Your task to perform on an android device: remove spam from my inbox in the gmail app Image 0: 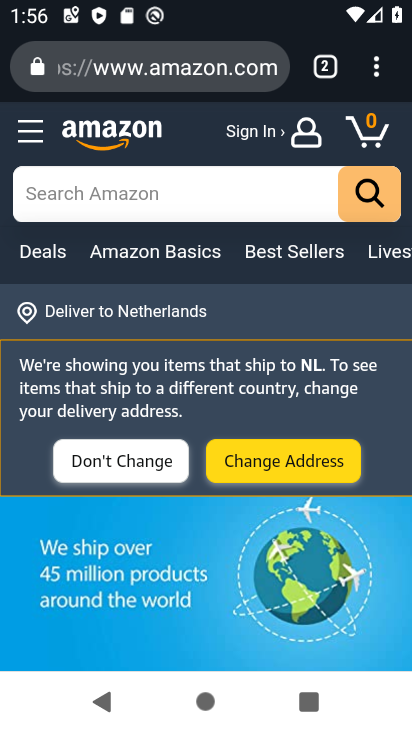
Step 0: press home button
Your task to perform on an android device: remove spam from my inbox in the gmail app Image 1: 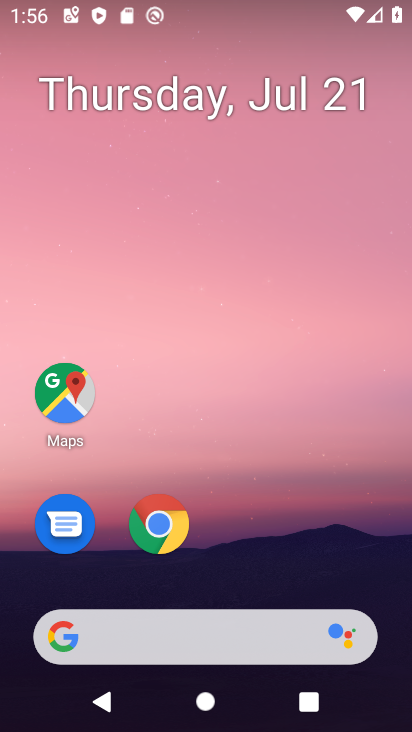
Step 1: drag from (297, 523) to (263, 64)
Your task to perform on an android device: remove spam from my inbox in the gmail app Image 2: 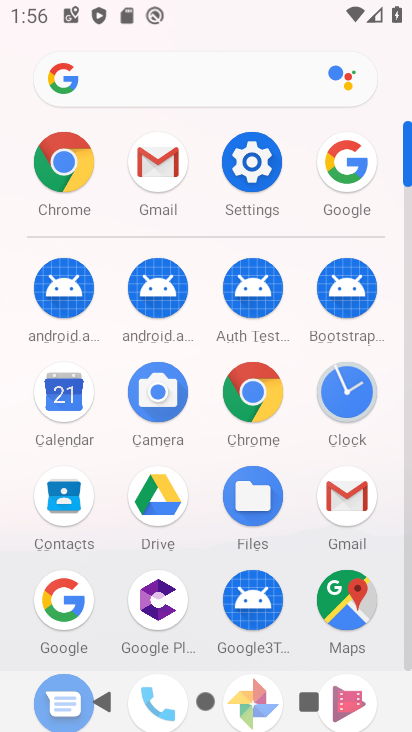
Step 2: click (175, 161)
Your task to perform on an android device: remove spam from my inbox in the gmail app Image 3: 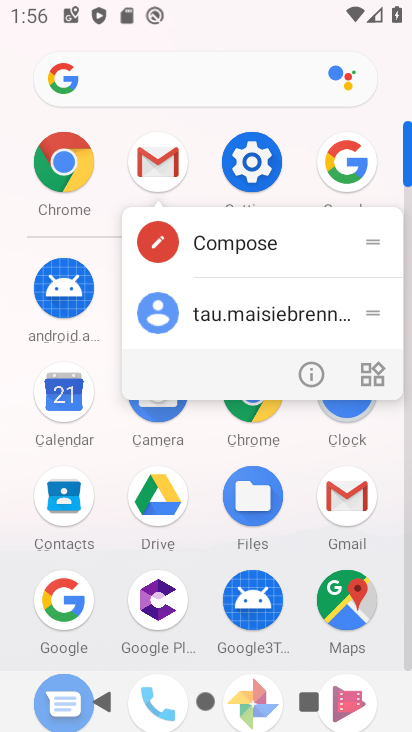
Step 3: click (155, 158)
Your task to perform on an android device: remove spam from my inbox in the gmail app Image 4: 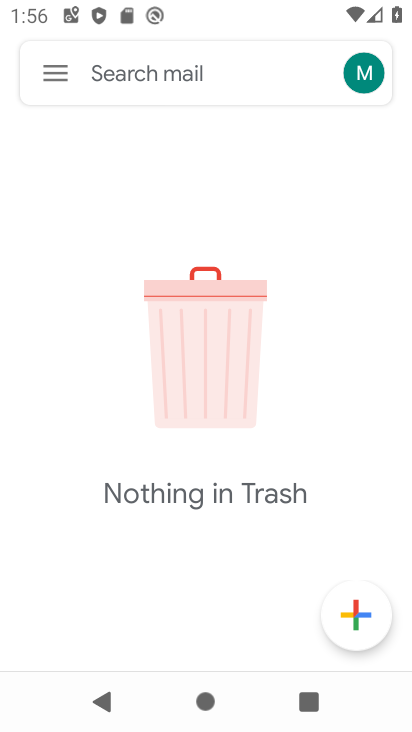
Step 4: click (52, 69)
Your task to perform on an android device: remove spam from my inbox in the gmail app Image 5: 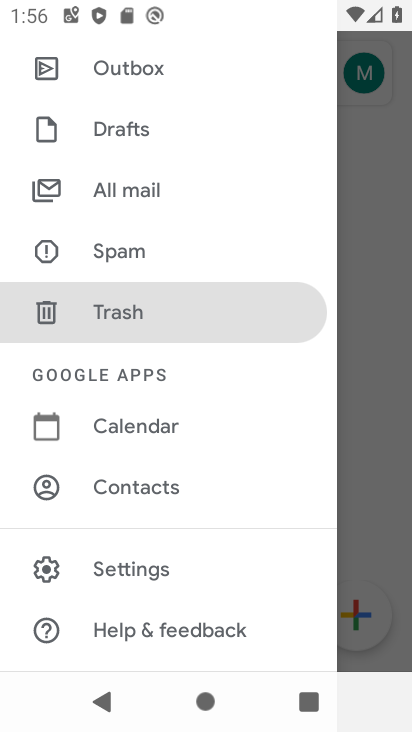
Step 5: click (120, 237)
Your task to perform on an android device: remove spam from my inbox in the gmail app Image 6: 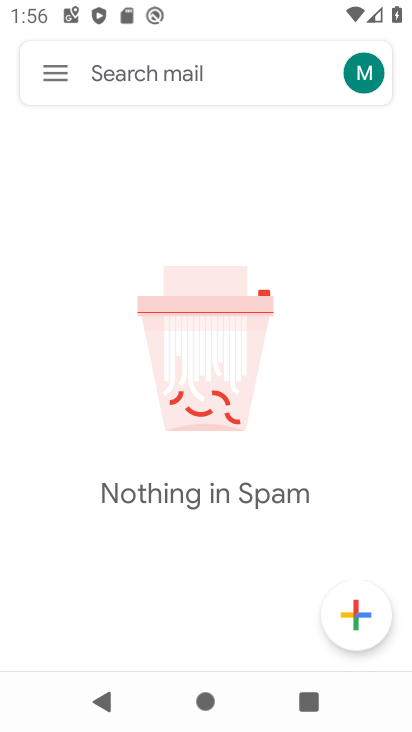
Step 6: task complete